Your task to perform on an android device: Go to CNN.com Image 0: 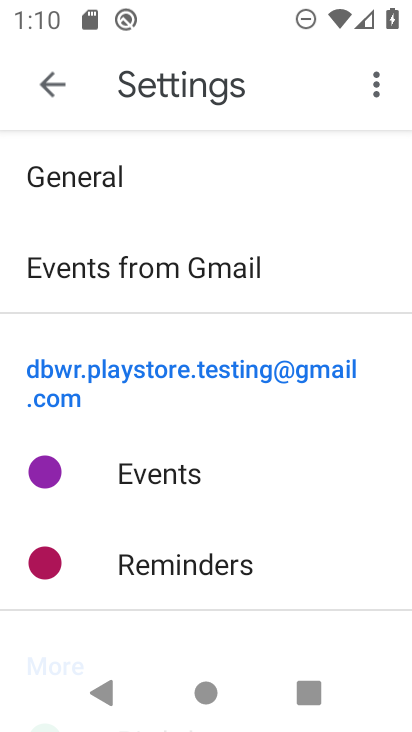
Step 0: press home button
Your task to perform on an android device: Go to CNN.com Image 1: 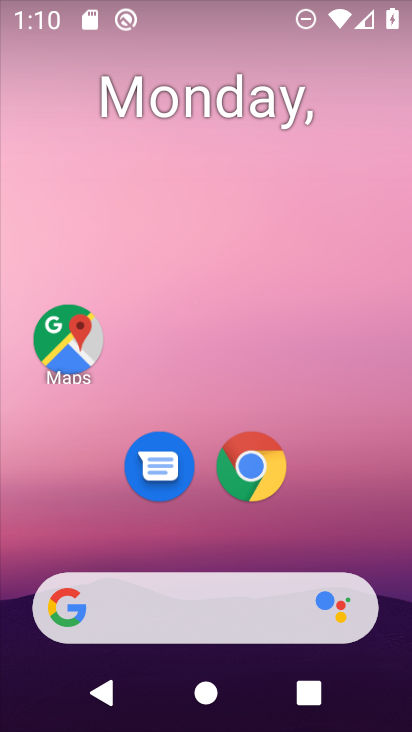
Step 1: click (256, 471)
Your task to perform on an android device: Go to CNN.com Image 2: 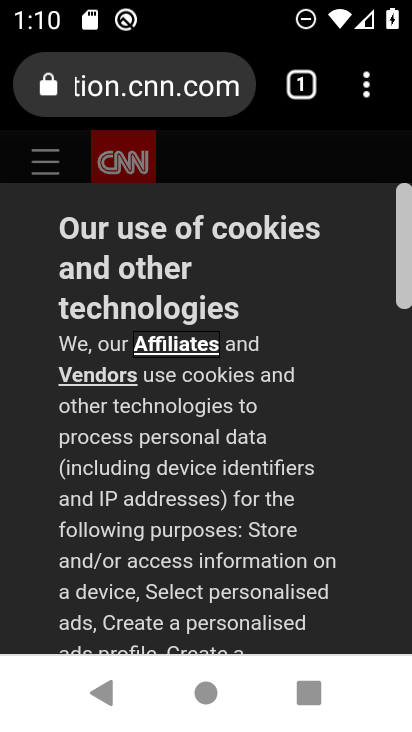
Step 2: click (154, 83)
Your task to perform on an android device: Go to CNN.com Image 3: 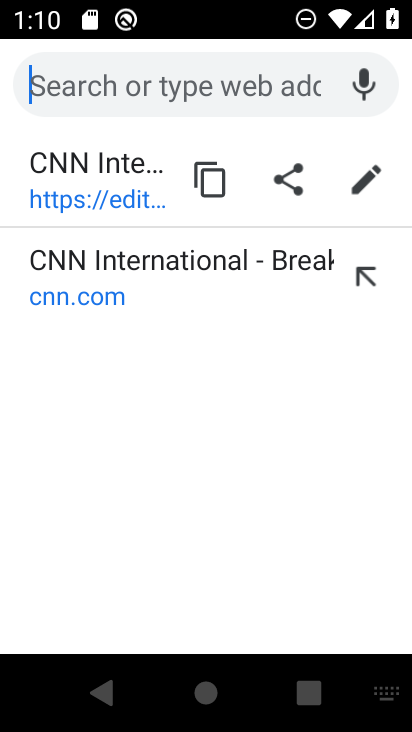
Step 3: type "CNN.com"
Your task to perform on an android device: Go to CNN.com Image 4: 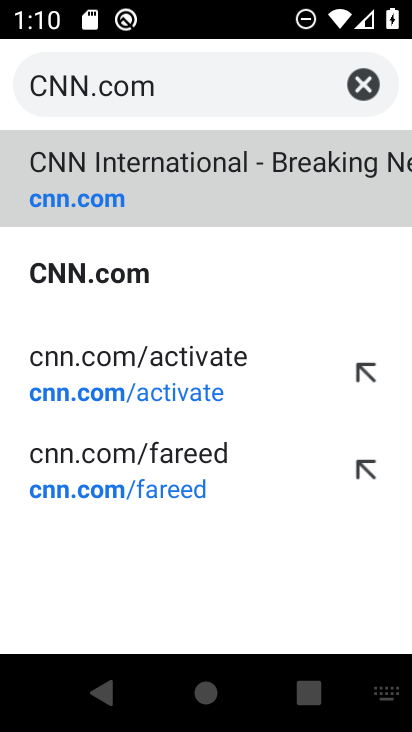
Step 4: click (134, 196)
Your task to perform on an android device: Go to CNN.com Image 5: 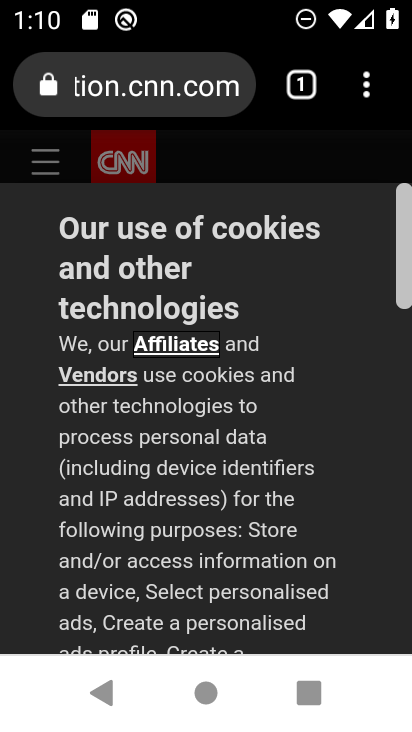
Step 5: task complete